Your task to perform on an android device: turn on sleep mode Image 0: 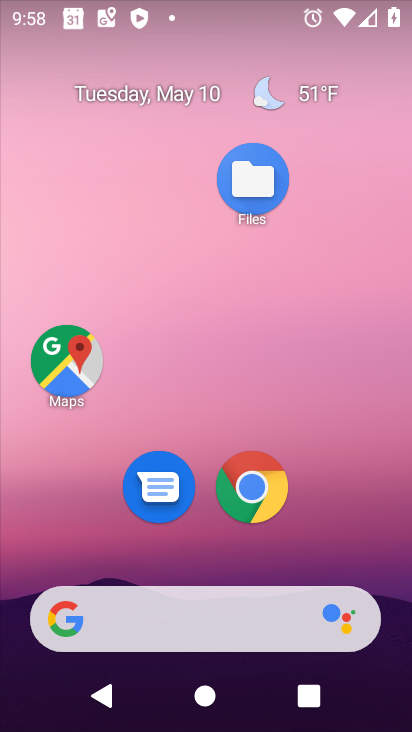
Step 0: drag from (201, 533) to (249, 132)
Your task to perform on an android device: turn on sleep mode Image 1: 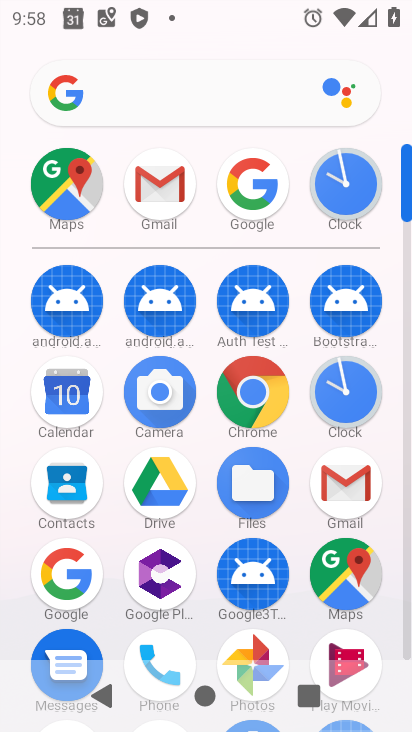
Step 1: drag from (193, 531) to (218, 110)
Your task to perform on an android device: turn on sleep mode Image 2: 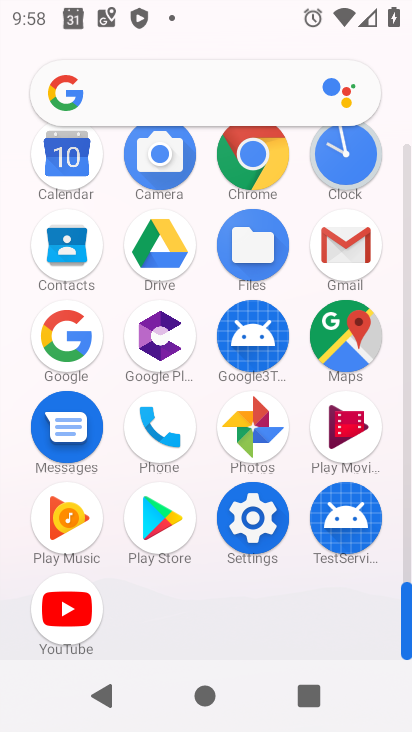
Step 2: click (253, 526)
Your task to perform on an android device: turn on sleep mode Image 3: 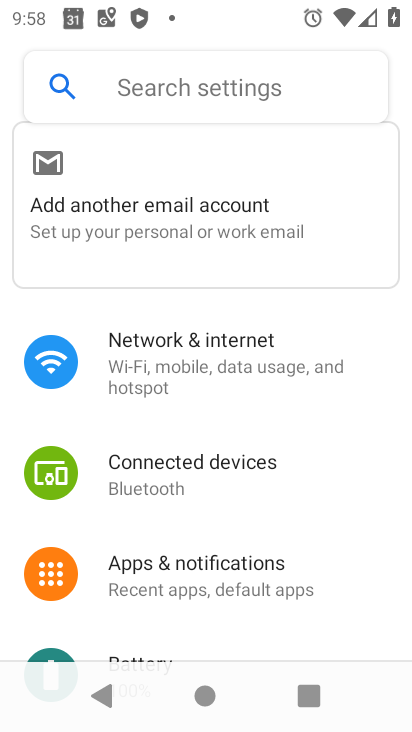
Step 3: drag from (254, 567) to (288, 113)
Your task to perform on an android device: turn on sleep mode Image 4: 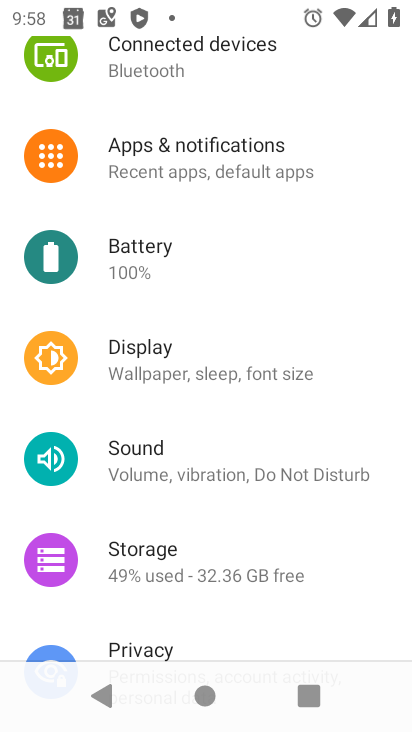
Step 4: click (199, 353)
Your task to perform on an android device: turn on sleep mode Image 5: 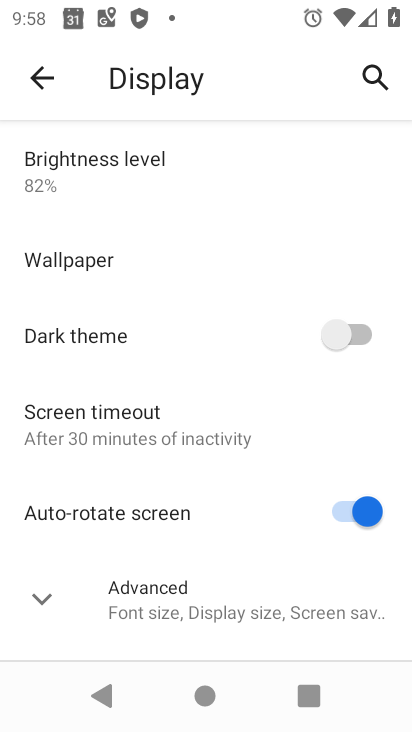
Step 5: click (112, 428)
Your task to perform on an android device: turn on sleep mode Image 6: 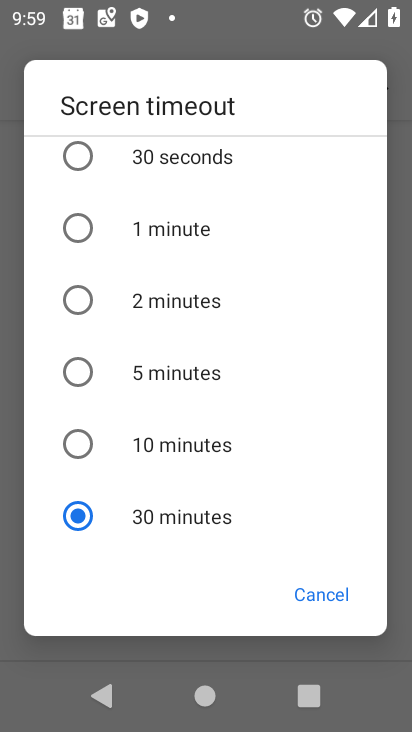
Step 6: task complete